Your task to perform on an android device: Open Yahoo.com Image 0: 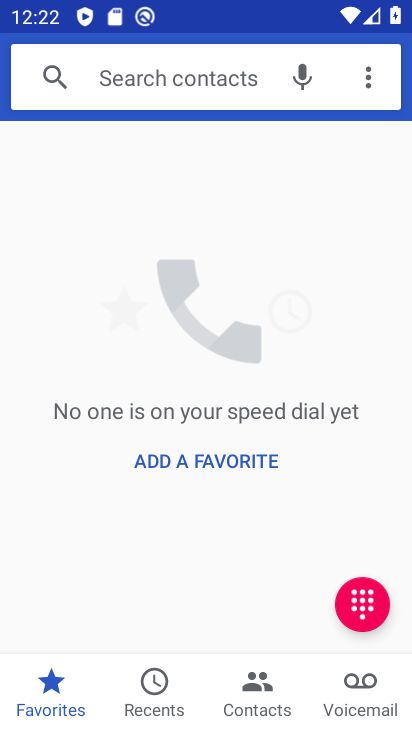
Step 0: press home button
Your task to perform on an android device: Open Yahoo.com Image 1: 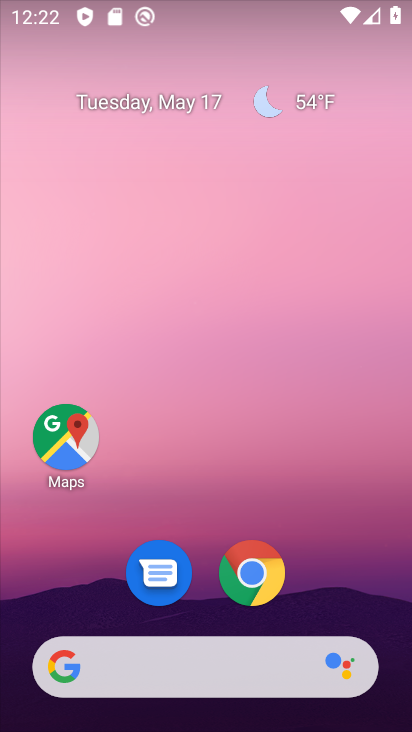
Step 1: click (253, 572)
Your task to perform on an android device: Open Yahoo.com Image 2: 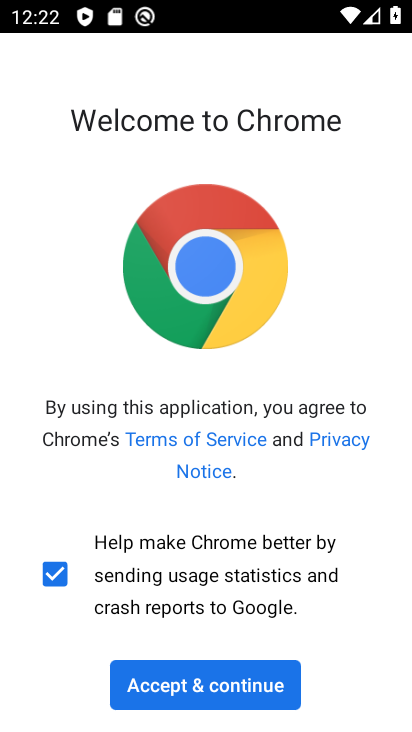
Step 2: click (202, 684)
Your task to perform on an android device: Open Yahoo.com Image 3: 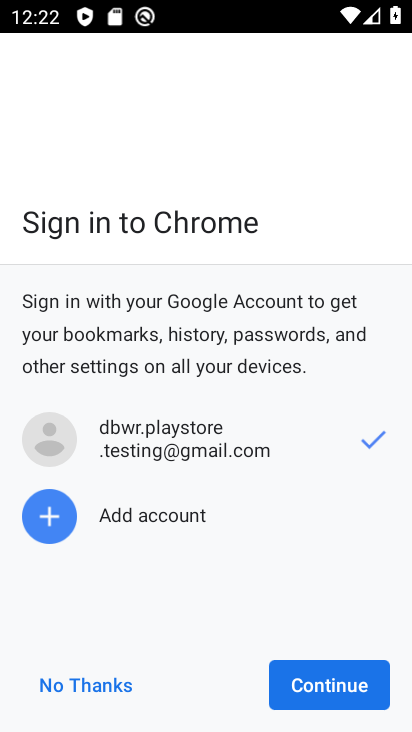
Step 3: click (332, 682)
Your task to perform on an android device: Open Yahoo.com Image 4: 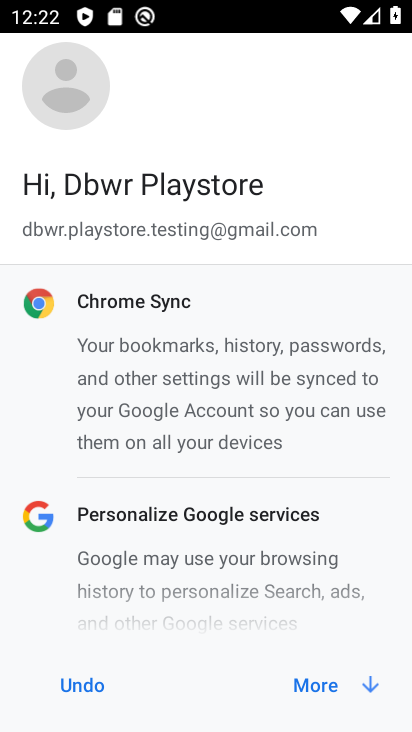
Step 4: click (332, 682)
Your task to perform on an android device: Open Yahoo.com Image 5: 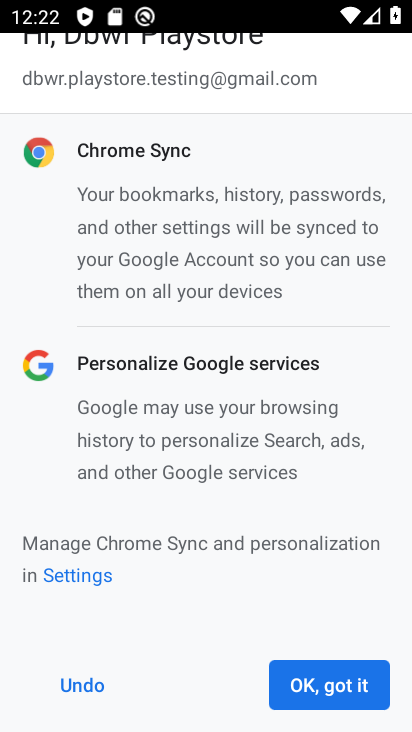
Step 5: click (332, 682)
Your task to perform on an android device: Open Yahoo.com Image 6: 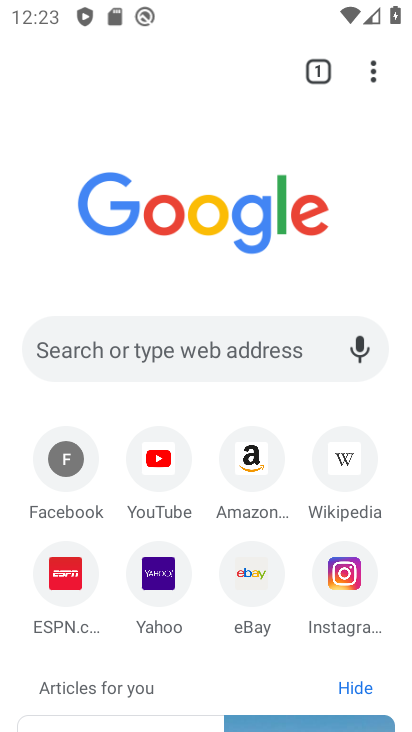
Step 6: click (160, 568)
Your task to perform on an android device: Open Yahoo.com Image 7: 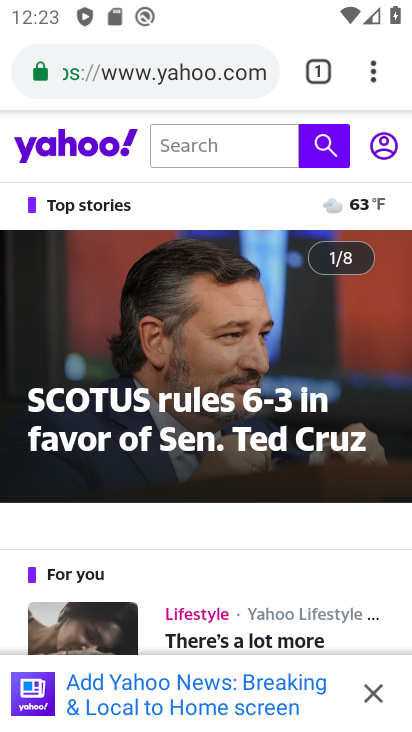
Step 7: click (369, 687)
Your task to perform on an android device: Open Yahoo.com Image 8: 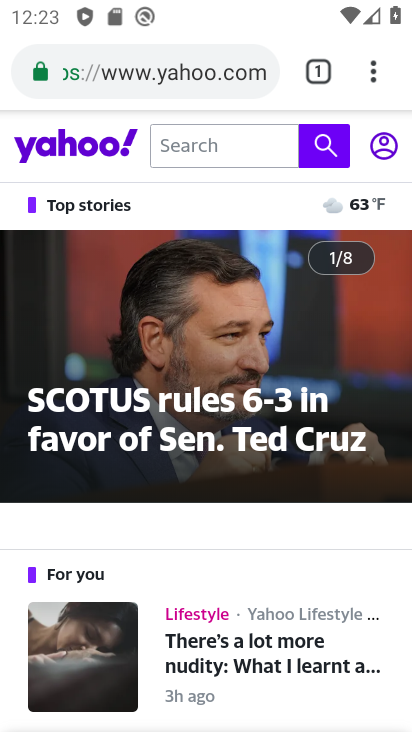
Step 8: task complete